Your task to perform on an android device: delete a single message in the gmail app Image 0: 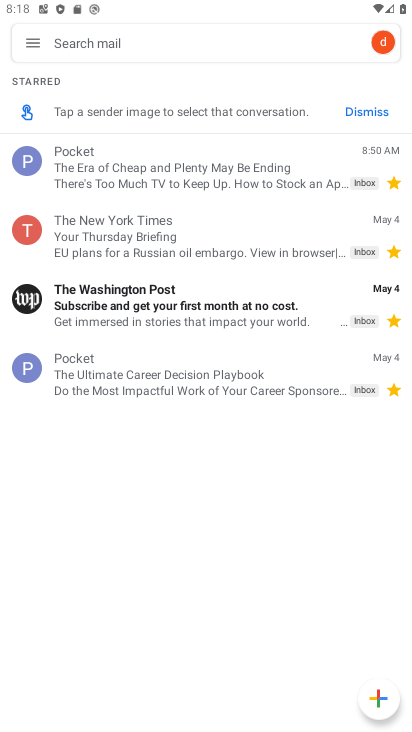
Step 0: press home button
Your task to perform on an android device: delete a single message in the gmail app Image 1: 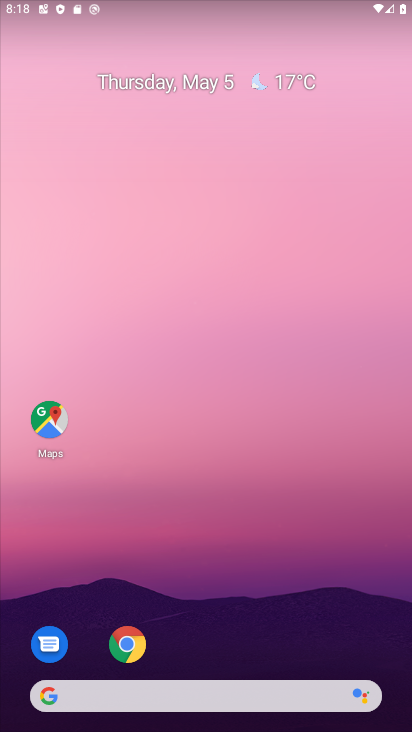
Step 1: drag from (211, 642) to (260, 238)
Your task to perform on an android device: delete a single message in the gmail app Image 2: 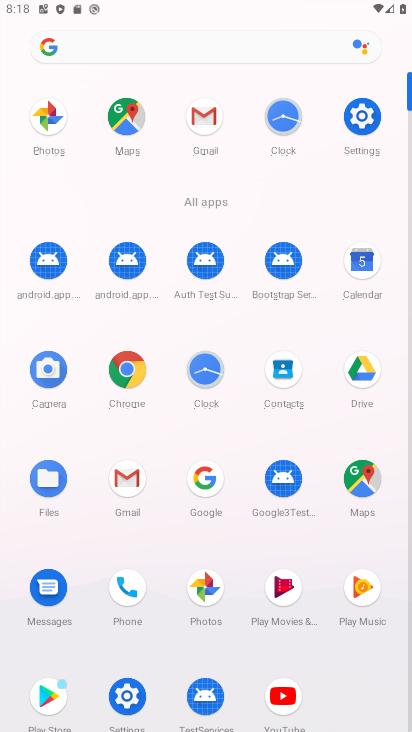
Step 2: click (120, 482)
Your task to perform on an android device: delete a single message in the gmail app Image 3: 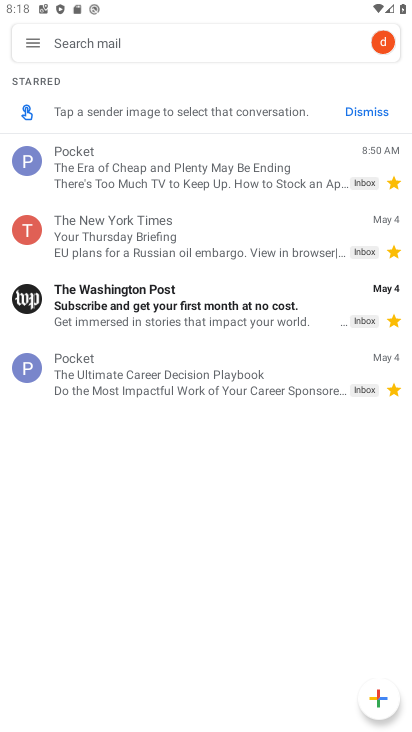
Step 3: click (31, 154)
Your task to perform on an android device: delete a single message in the gmail app Image 4: 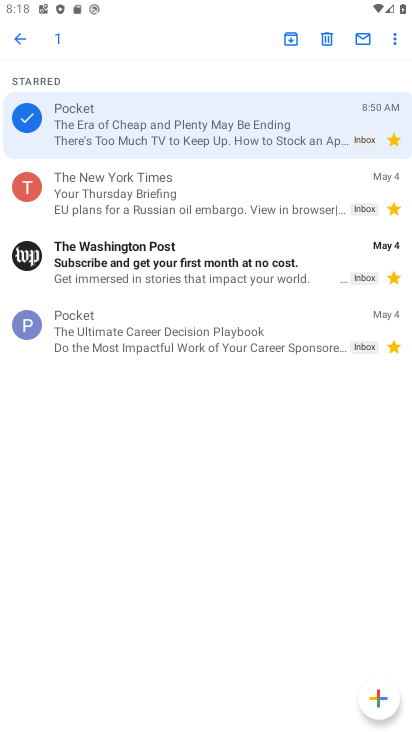
Step 4: click (24, 155)
Your task to perform on an android device: delete a single message in the gmail app Image 5: 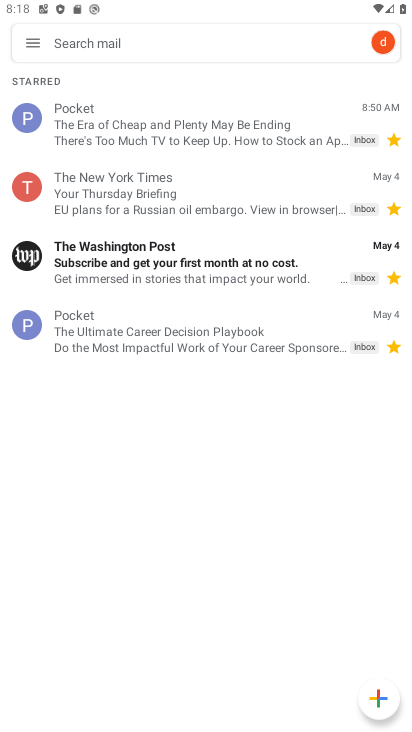
Step 5: click (33, 40)
Your task to perform on an android device: delete a single message in the gmail app Image 6: 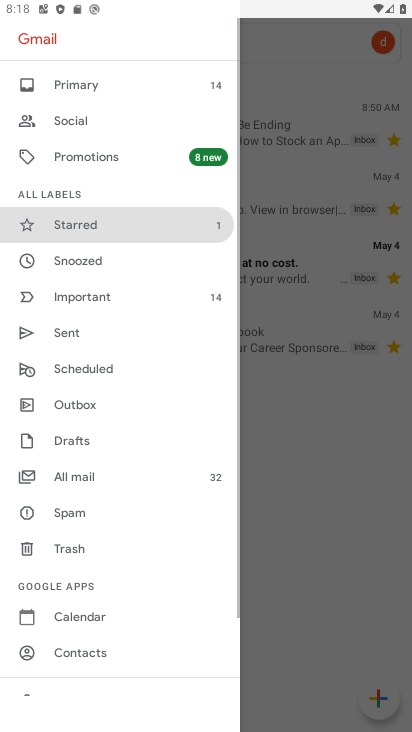
Step 6: click (93, 87)
Your task to perform on an android device: delete a single message in the gmail app Image 7: 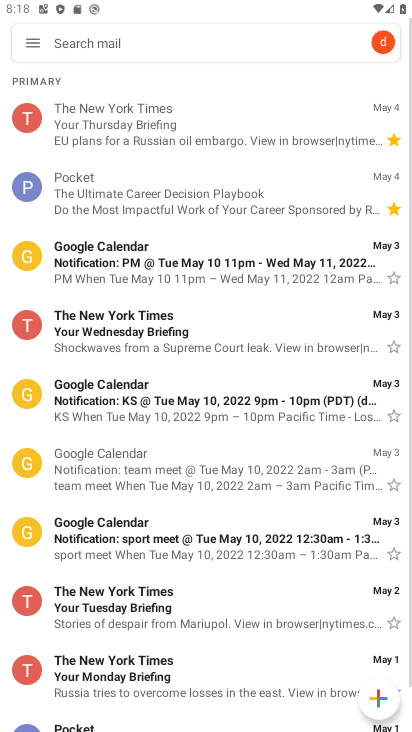
Step 7: click (35, 108)
Your task to perform on an android device: delete a single message in the gmail app Image 8: 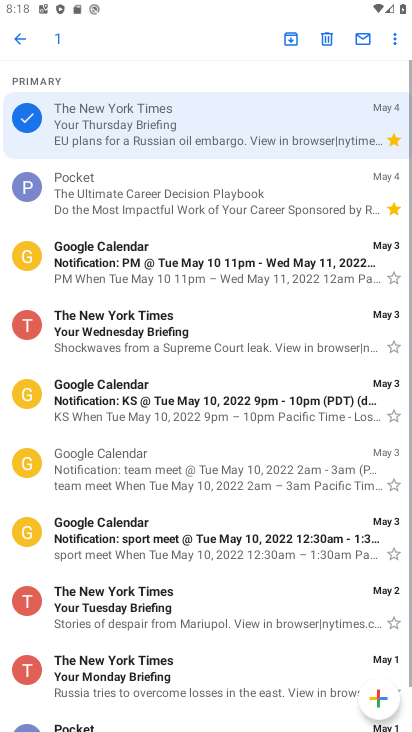
Step 8: click (318, 36)
Your task to perform on an android device: delete a single message in the gmail app Image 9: 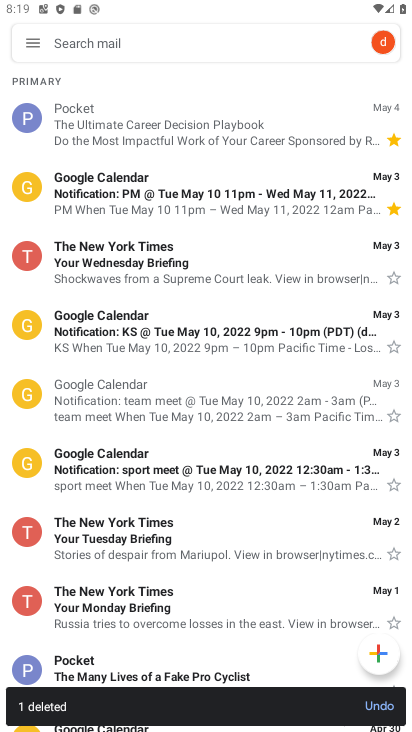
Step 9: task complete